Your task to perform on an android device: check the backup settings in the google photos Image 0: 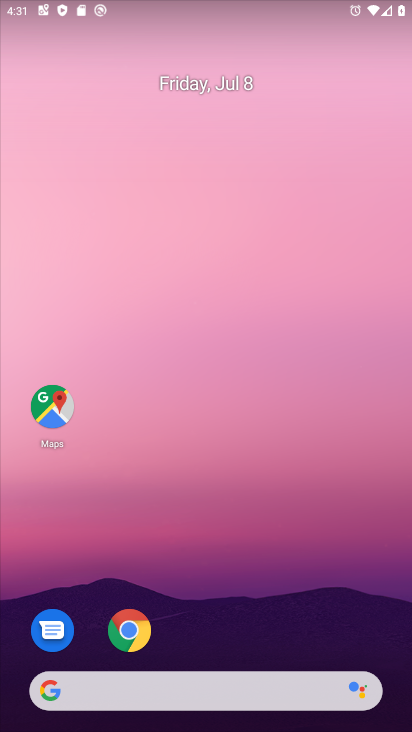
Step 0: drag from (211, 697) to (220, 119)
Your task to perform on an android device: check the backup settings in the google photos Image 1: 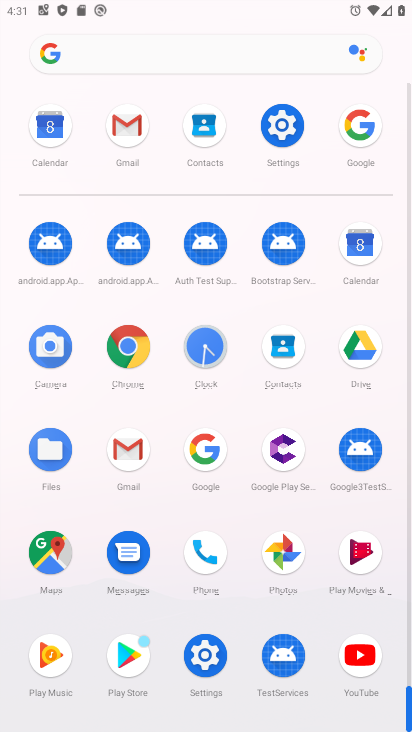
Step 1: click (282, 550)
Your task to perform on an android device: check the backup settings in the google photos Image 2: 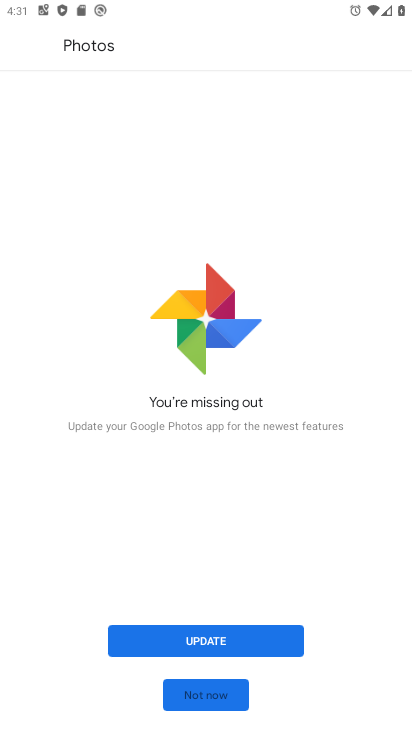
Step 2: click (210, 642)
Your task to perform on an android device: check the backup settings in the google photos Image 3: 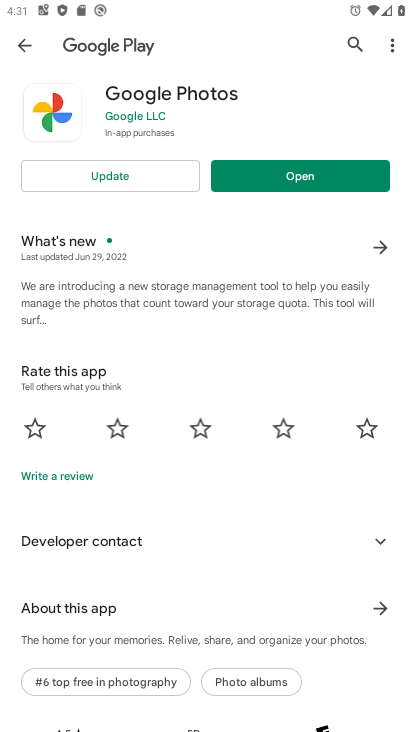
Step 3: click (120, 183)
Your task to perform on an android device: check the backup settings in the google photos Image 4: 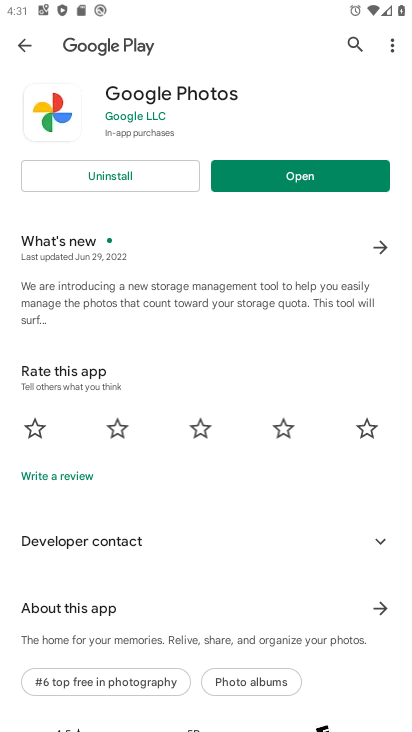
Step 4: click (259, 174)
Your task to perform on an android device: check the backup settings in the google photos Image 5: 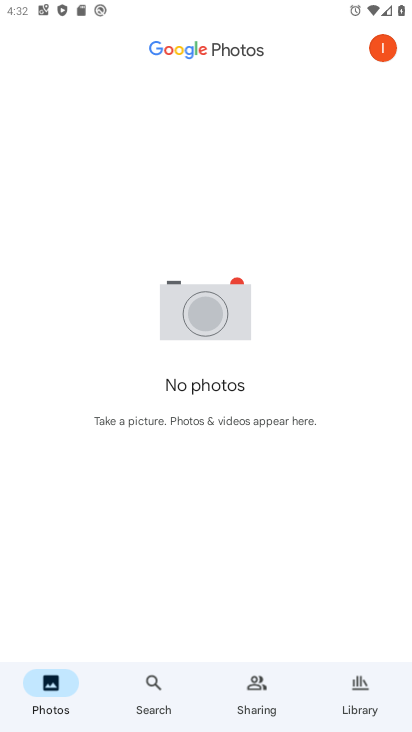
Step 5: click (384, 47)
Your task to perform on an android device: check the backup settings in the google photos Image 6: 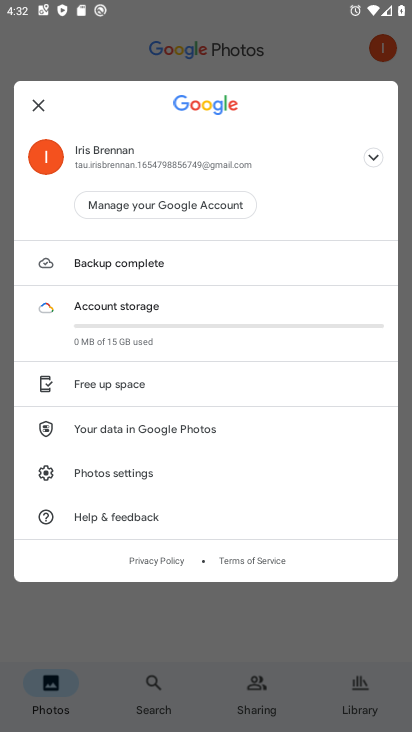
Step 6: click (134, 475)
Your task to perform on an android device: check the backup settings in the google photos Image 7: 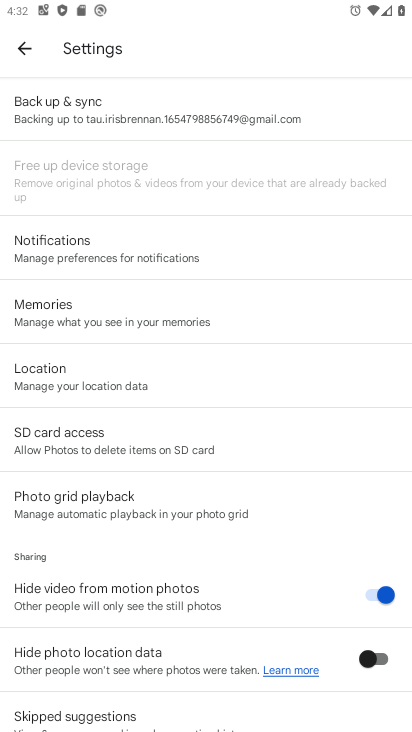
Step 7: click (204, 123)
Your task to perform on an android device: check the backup settings in the google photos Image 8: 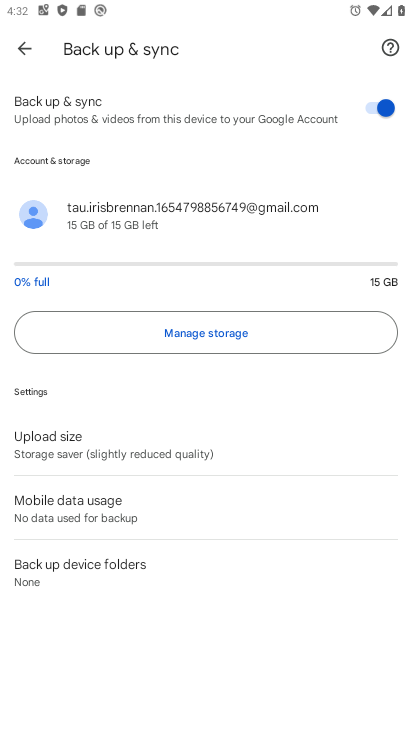
Step 8: task complete